Your task to perform on an android device: Open eBay Image 0: 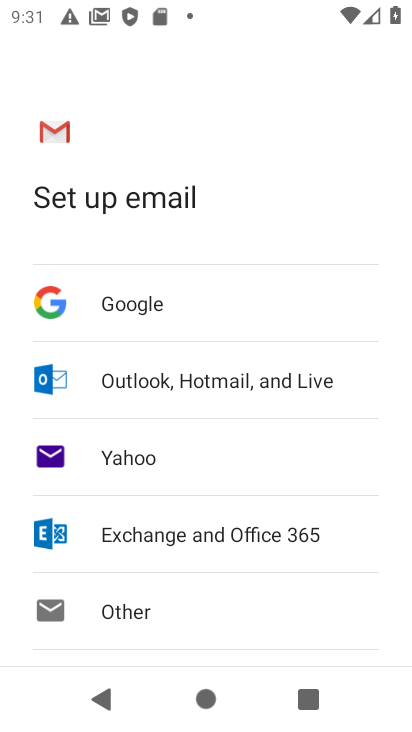
Step 0: press home button
Your task to perform on an android device: Open eBay Image 1: 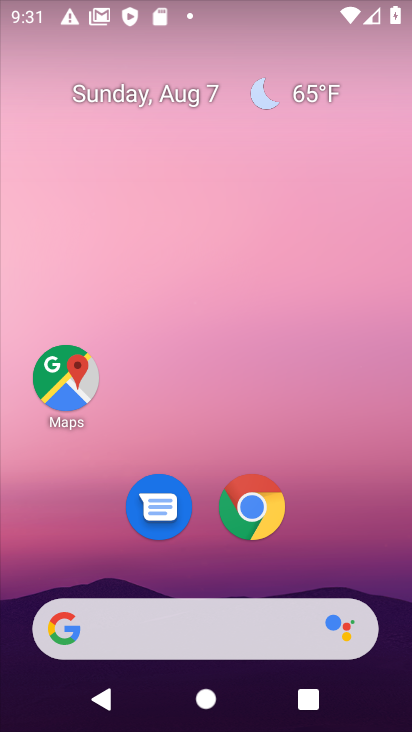
Step 1: drag from (375, 545) to (341, 41)
Your task to perform on an android device: Open eBay Image 2: 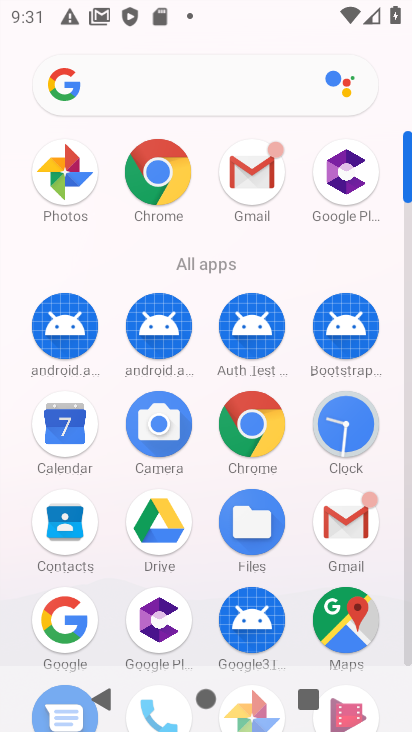
Step 2: click (251, 416)
Your task to perform on an android device: Open eBay Image 3: 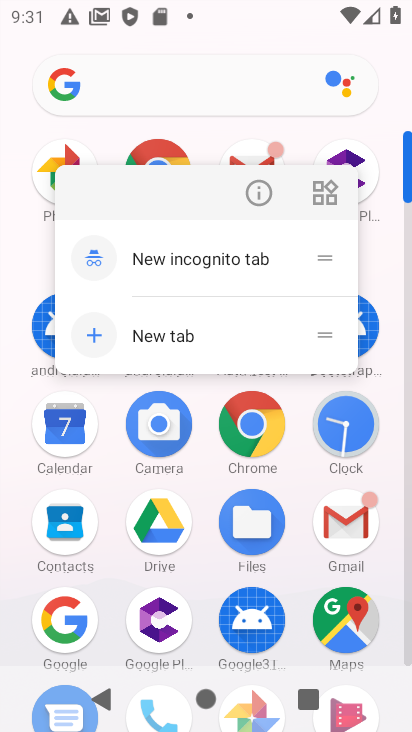
Step 3: click (248, 424)
Your task to perform on an android device: Open eBay Image 4: 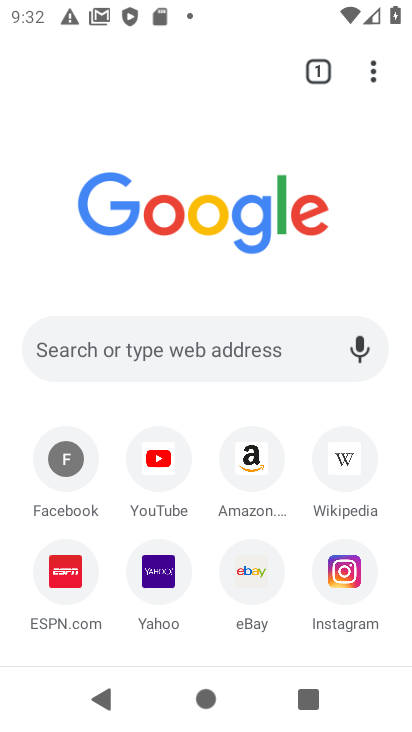
Step 4: click (255, 564)
Your task to perform on an android device: Open eBay Image 5: 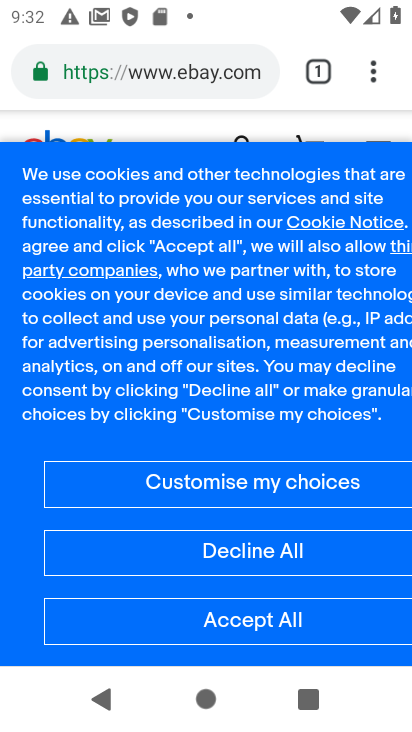
Step 5: task complete